Your task to perform on an android device: change the clock display to digital Image 0: 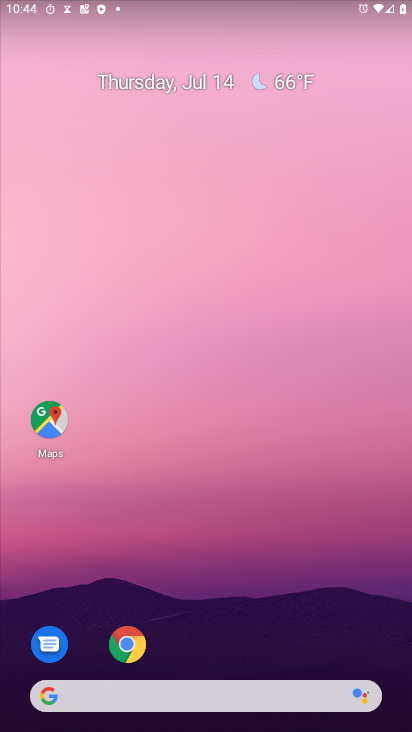
Step 0: click (236, 203)
Your task to perform on an android device: change the clock display to digital Image 1: 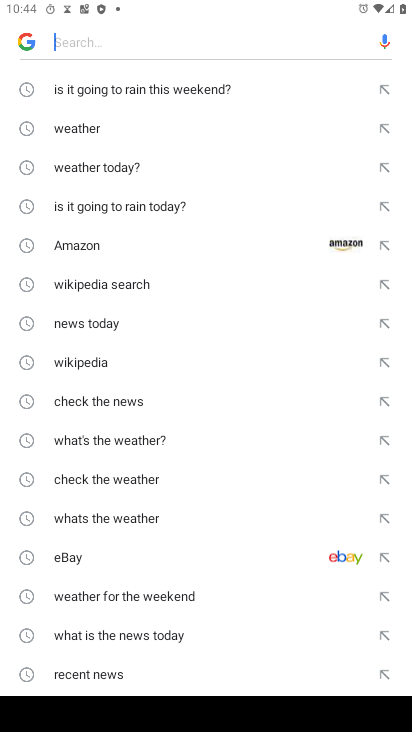
Step 1: press home button
Your task to perform on an android device: change the clock display to digital Image 2: 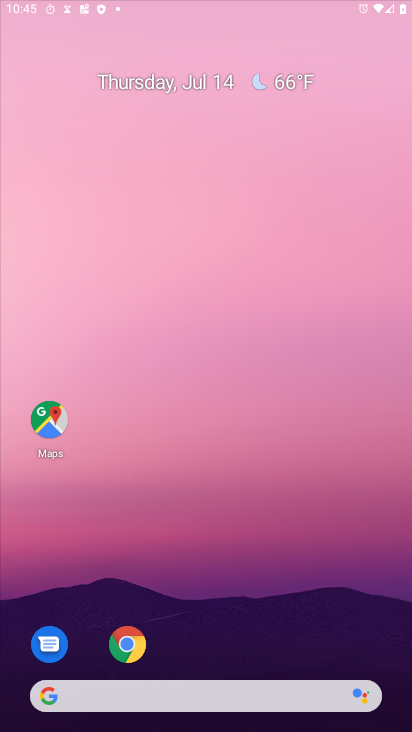
Step 2: drag from (305, 566) to (314, 94)
Your task to perform on an android device: change the clock display to digital Image 3: 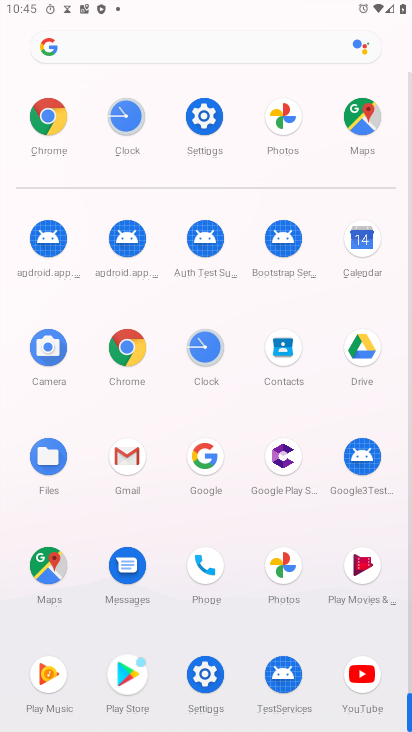
Step 3: click (209, 358)
Your task to perform on an android device: change the clock display to digital Image 4: 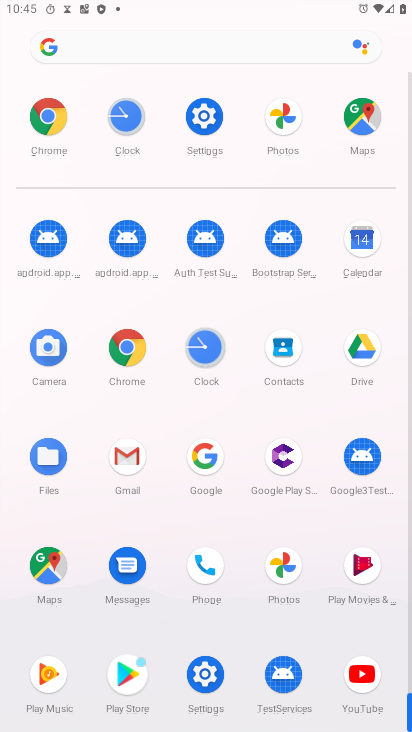
Step 4: click (210, 347)
Your task to perform on an android device: change the clock display to digital Image 5: 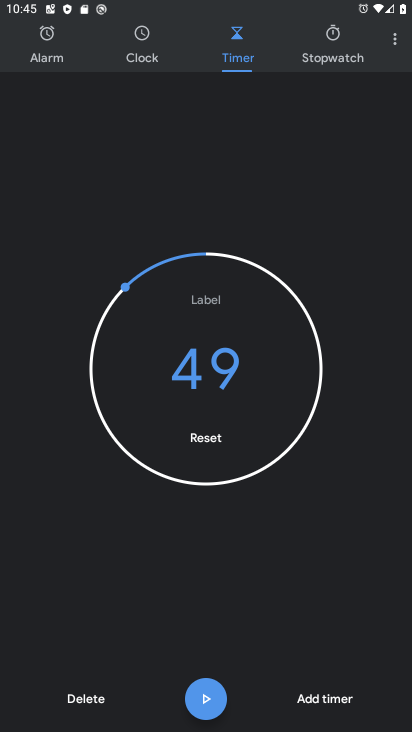
Step 5: drag from (399, 48) to (308, 77)
Your task to perform on an android device: change the clock display to digital Image 6: 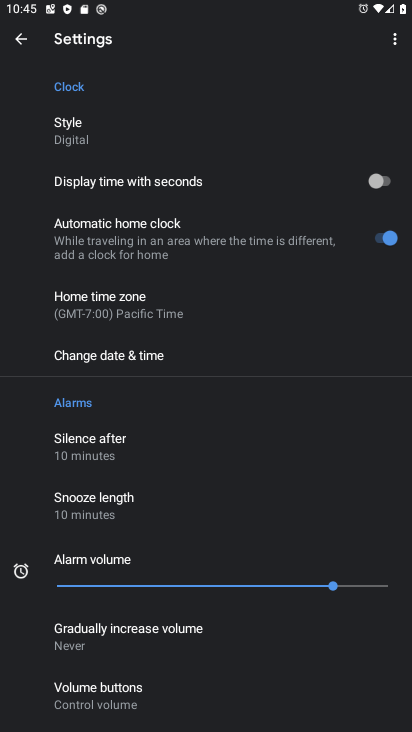
Step 6: click (78, 130)
Your task to perform on an android device: change the clock display to digital Image 7: 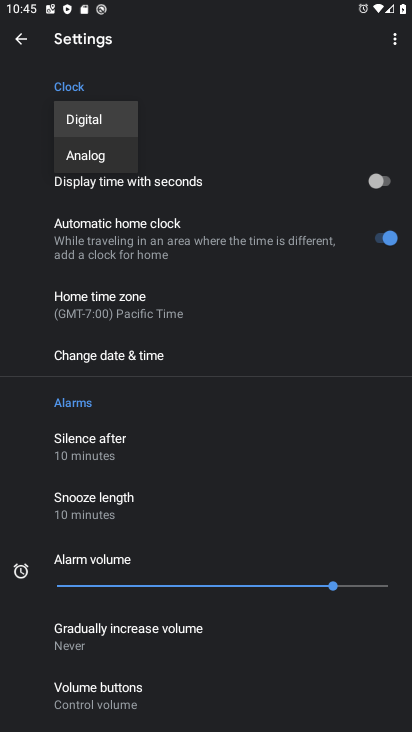
Step 7: click (89, 165)
Your task to perform on an android device: change the clock display to digital Image 8: 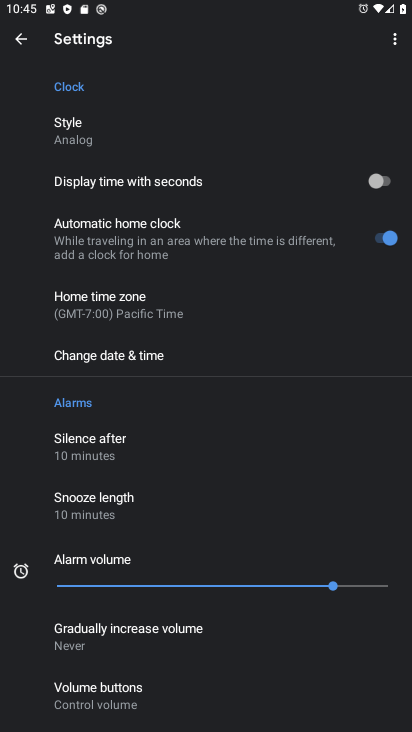
Step 8: click (81, 138)
Your task to perform on an android device: change the clock display to digital Image 9: 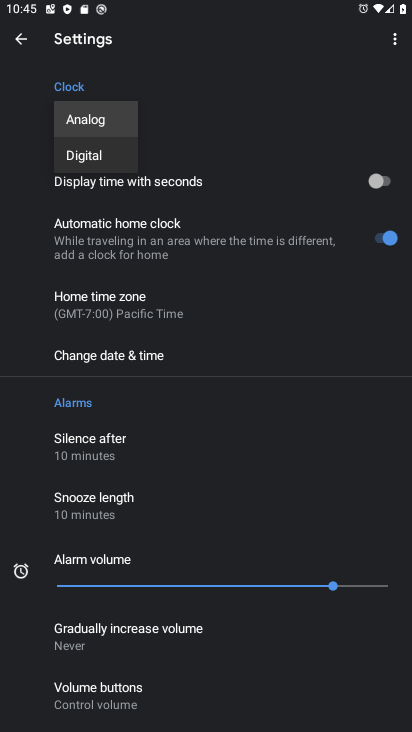
Step 9: click (88, 146)
Your task to perform on an android device: change the clock display to digital Image 10: 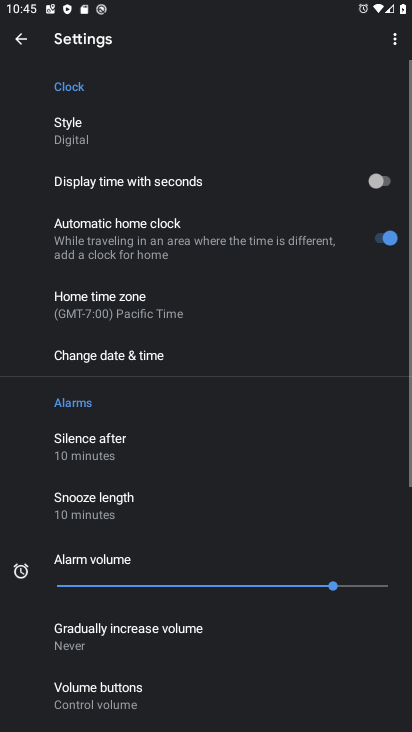
Step 10: task complete